Your task to perform on an android device: open chrome privacy settings Image 0: 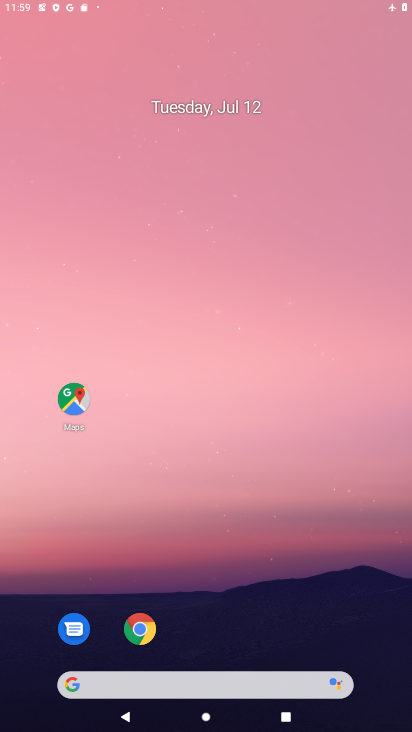
Step 0: drag from (221, 360) to (192, 130)
Your task to perform on an android device: open chrome privacy settings Image 1: 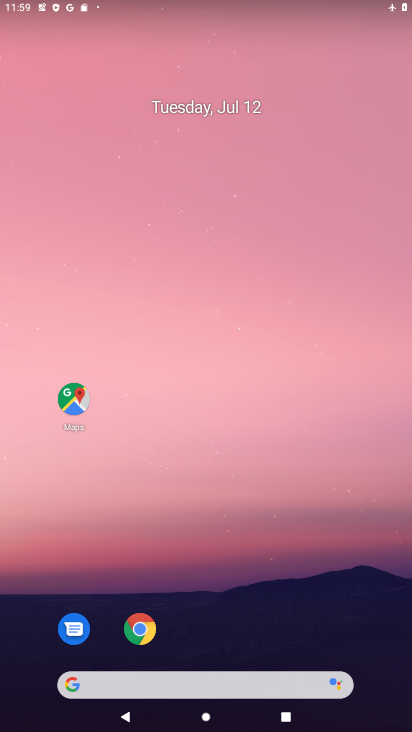
Step 1: drag from (172, 509) to (173, 151)
Your task to perform on an android device: open chrome privacy settings Image 2: 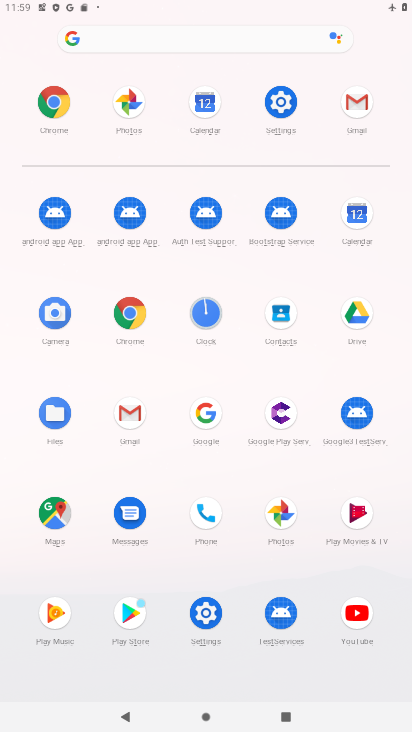
Step 2: click (37, 99)
Your task to perform on an android device: open chrome privacy settings Image 3: 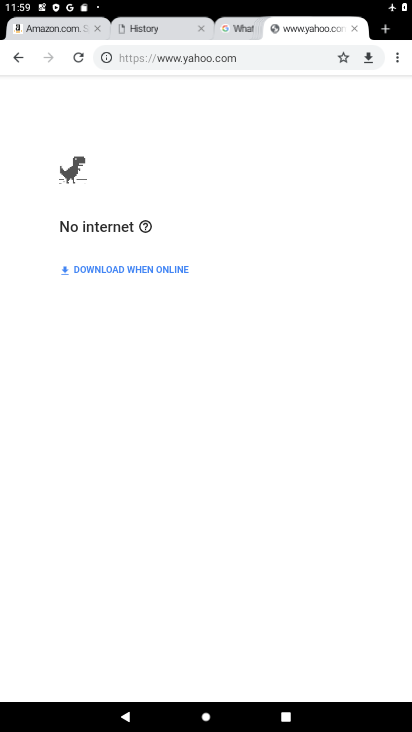
Step 3: click (388, 54)
Your task to perform on an android device: open chrome privacy settings Image 4: 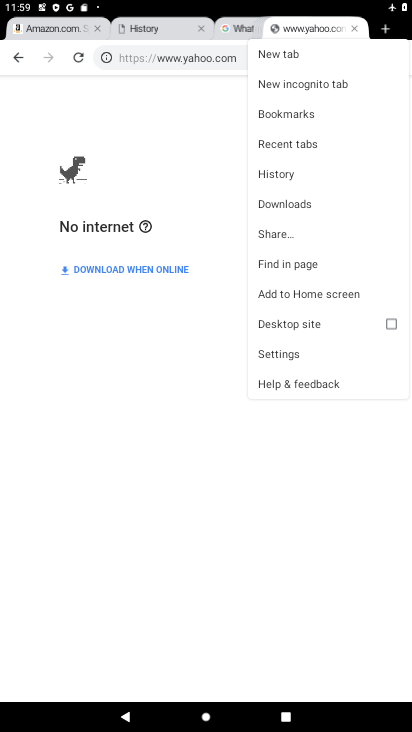
Step 4: click (277, 362)
Your task to perform on an android device: open chrome privacy settings Image 5: 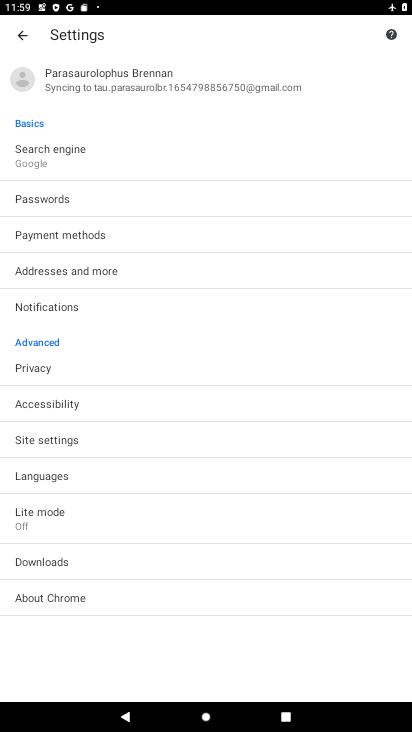
Step 5: click (57, 373)
Your task to perform on an android device: open chrome privacy settings Image 6: 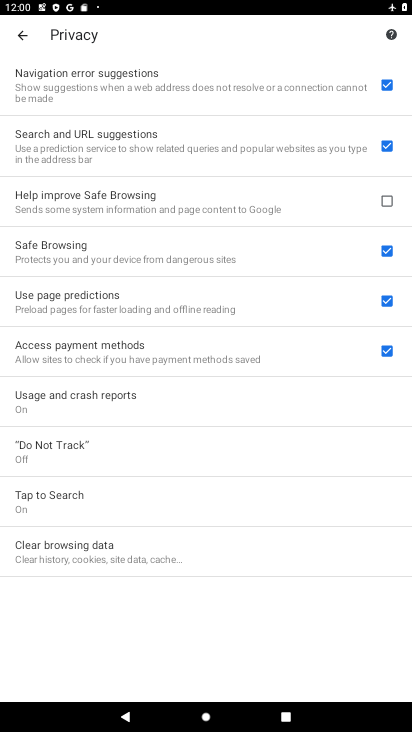
Step 6: task complete